Your task to perform on an android device: Open Google Maps and go to "Timeline" Image 0: 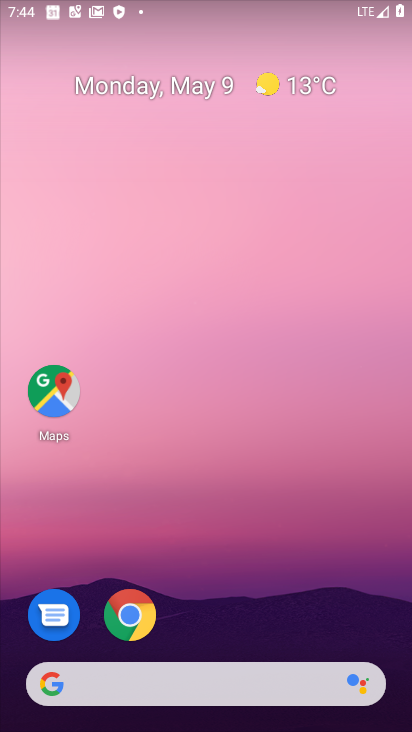
Step 0: click (65, 381)
Your task to perform on an android device: Open Google Maps and go to "Timeline" Image 1: 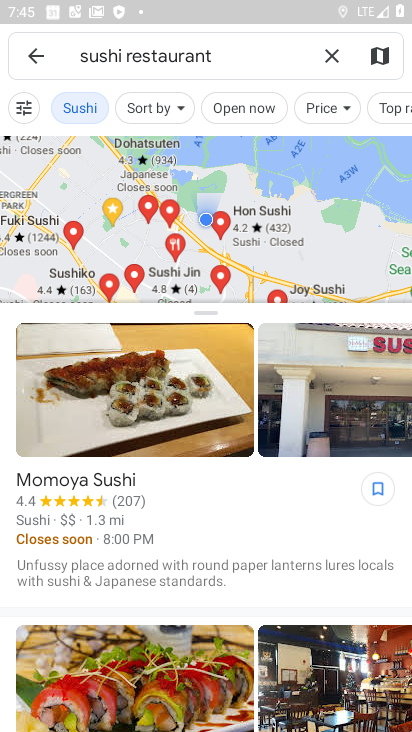
Step 1: click (47, 67)
Your task to perform on an android device: Open Google Maps and go to "Timeline" Image 2: 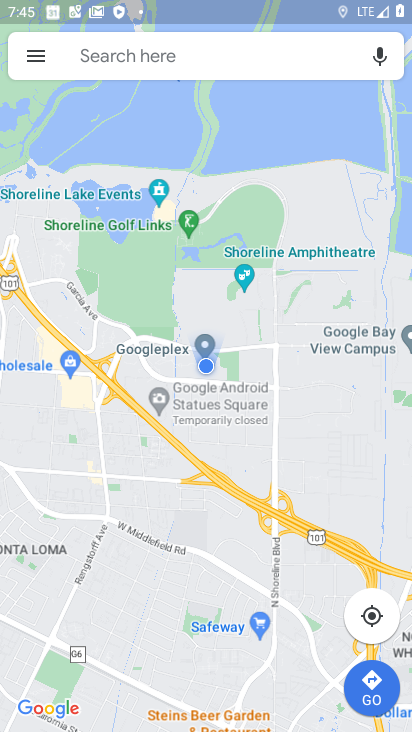
Step 2: click (47, 67)
Your task to perform on an android device: Open Google Maps and go to "Timeline" Image 3: 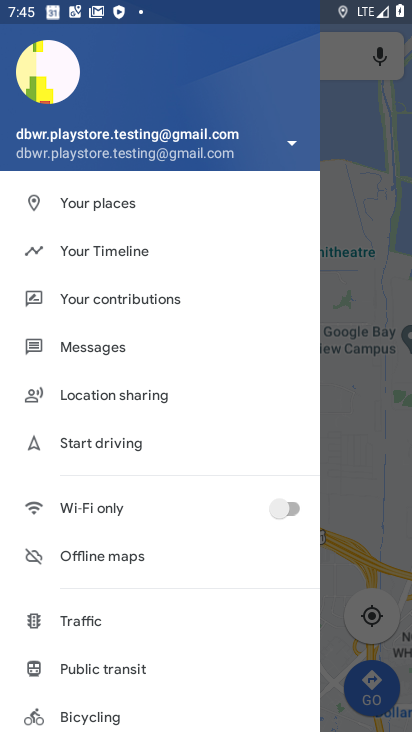
Step 3: click (101, 263)
Your task to perform on an android device: Open Google Maps and go to "Timeline" Image 4: 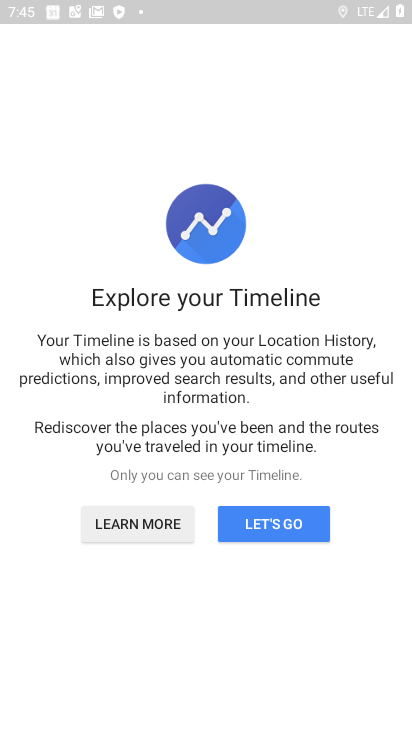
Step 4: click (308, 515)
Your task to perform on an android device: Open Google Maps and go to "Timeline" Image 5: 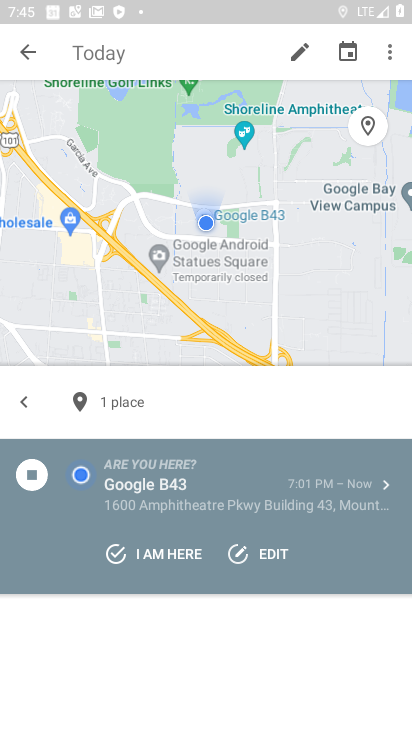
Step 5: task complete